Your task to perform on an android device: Search for Italian restaurants on Maps Image 0: 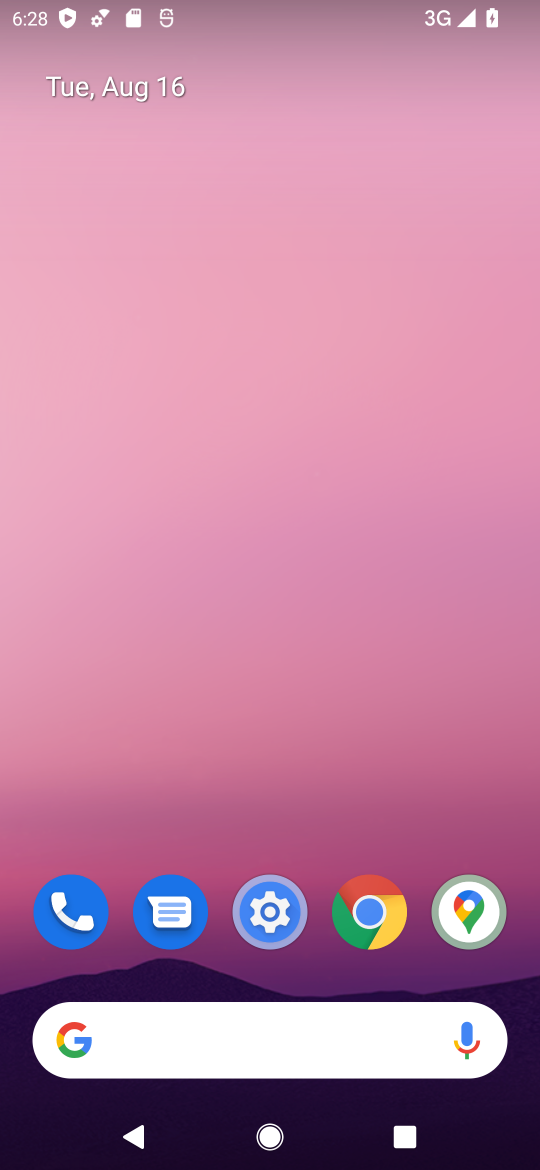
Step 0: click (474, 908)
Your task to perform on an android device: Search for Italian restaurants on Maps Image 1: 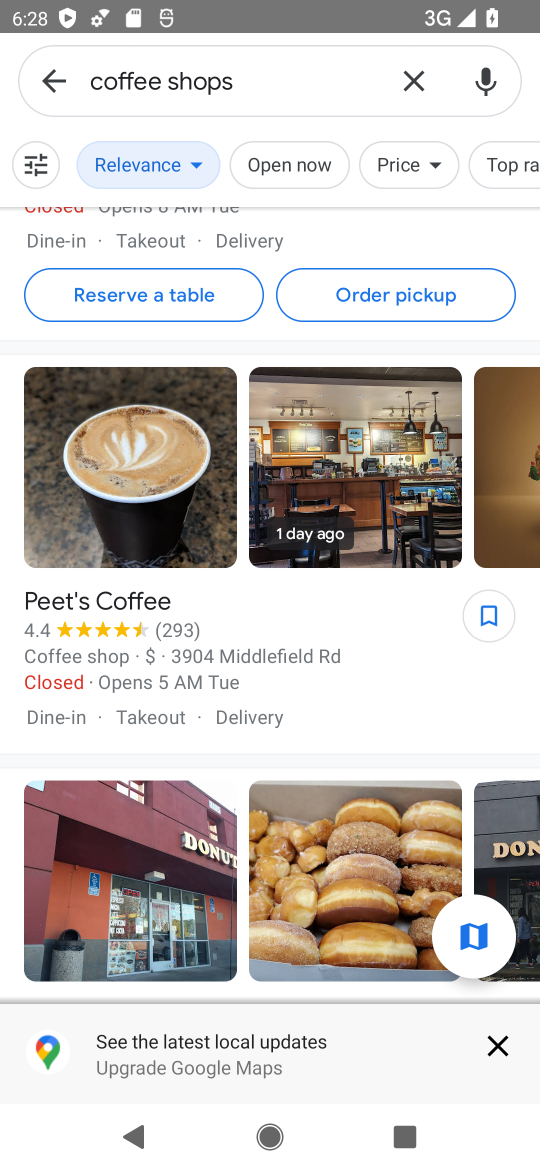
Step 1: click (413, 77)
Your task to perform on an android device: Search for Italian restaurants on Maps Image 2: 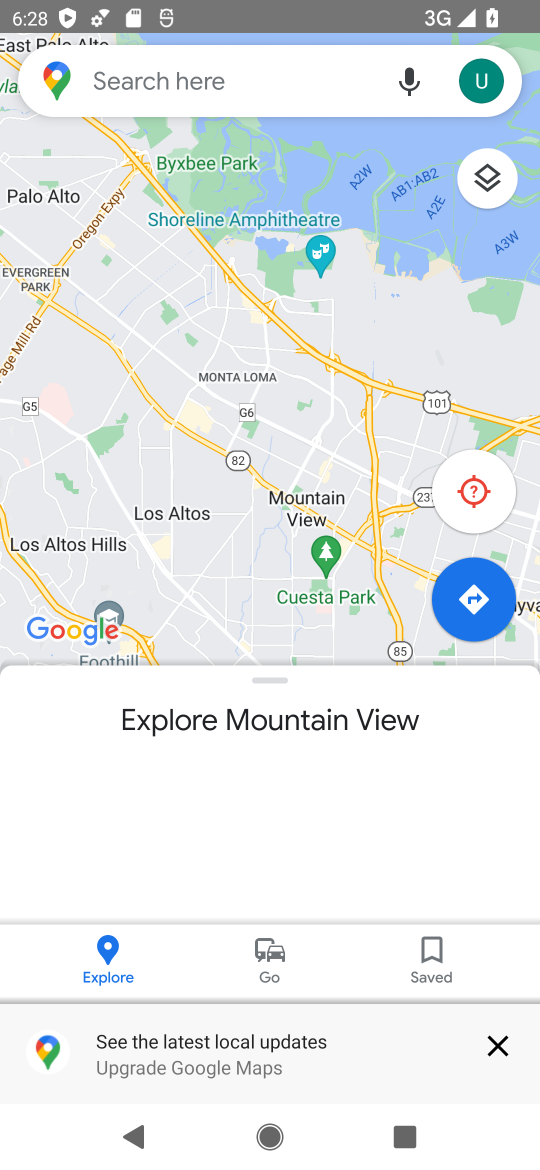
Step 2: click (163, 74)
Your task to perform on an android device: Search for Italian restaurants on Maps Image 3: 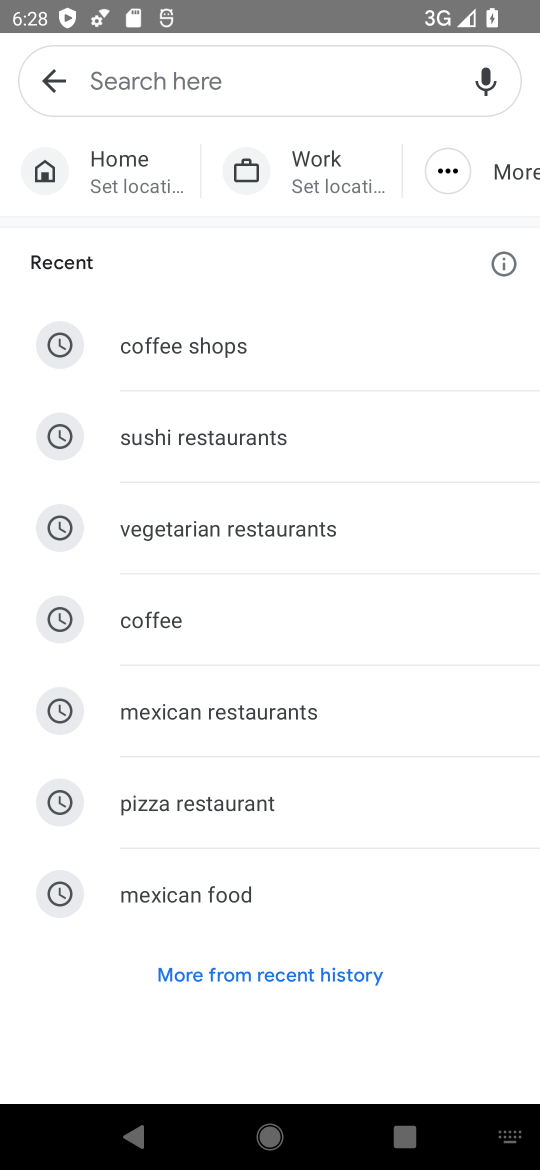
Step 3: type "italian restaurants"
Your task to perform on an android device: Search for Italian restaurants on Maps Image 4: 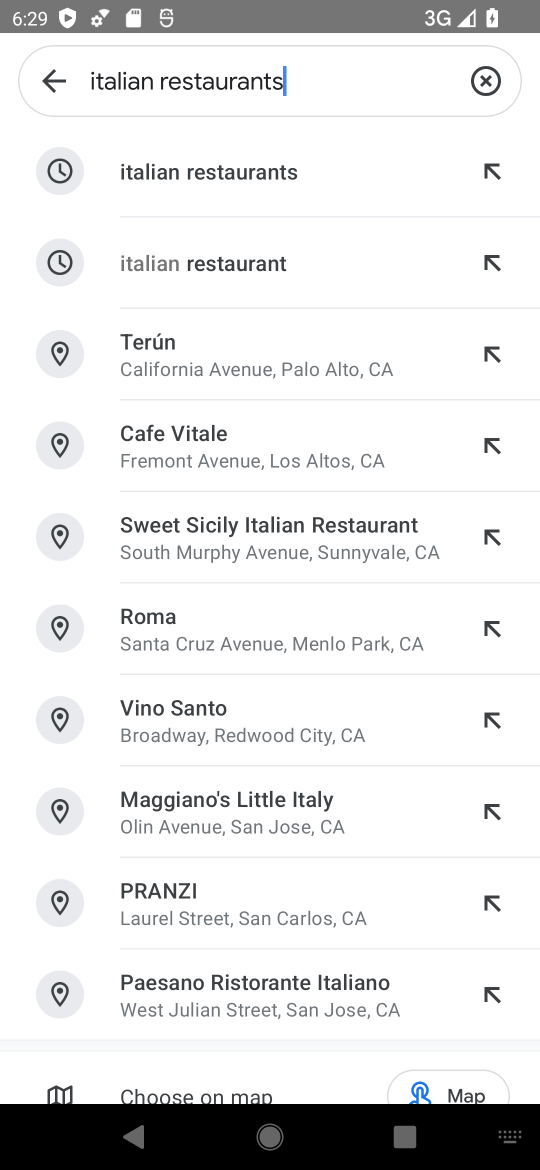
Step 4: click (219, 170)
Your task to perform on an android device: Search for Italian restaurants on Maps Image 5: 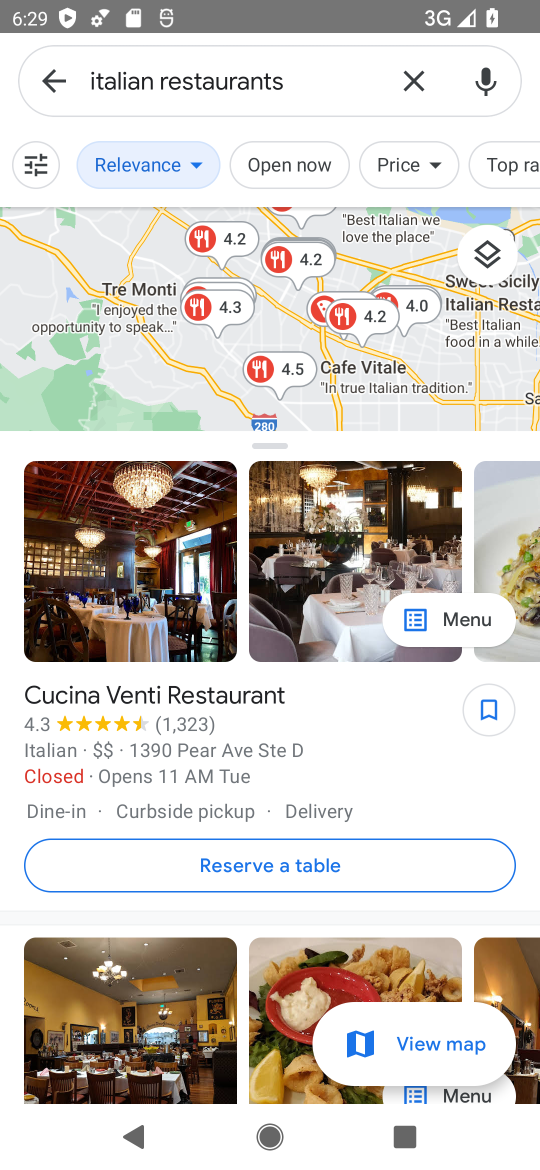
Step 5: task complete